Your task to perform on an android device: Go to calendar. Show me events next week Image 0: 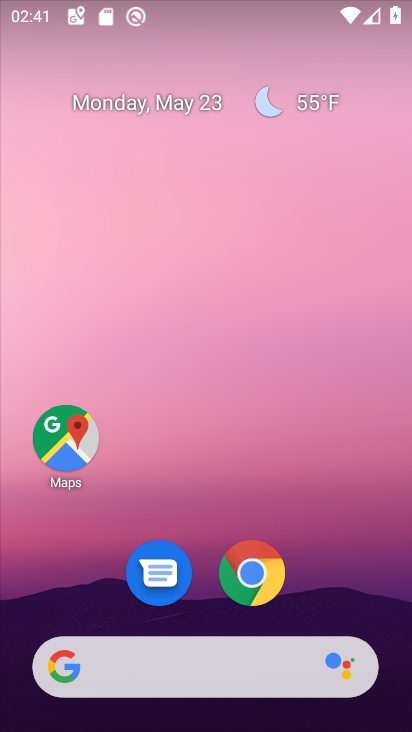
Step 0: drag from (319, 545) to (286, 295)
Your task to perform on an android device: Go to calendar. Show me events next week Image 1: 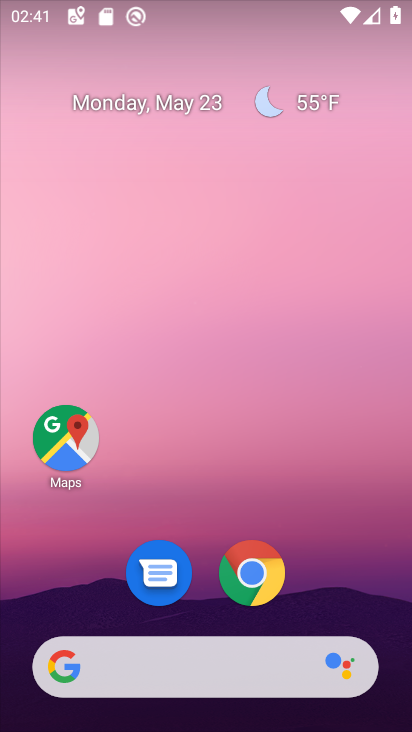
Step 1: drag from (378, 590) to (320, 115)
Your task to perform on an android device: Go to calendar. Show me events next week Image 2: 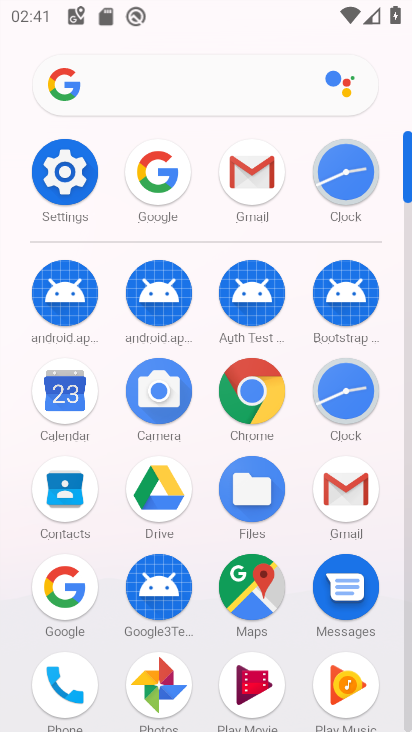
Step 2: click (57, 408)
Your task to perform on an android device: Go to calendar. Show me events next week Image 3: 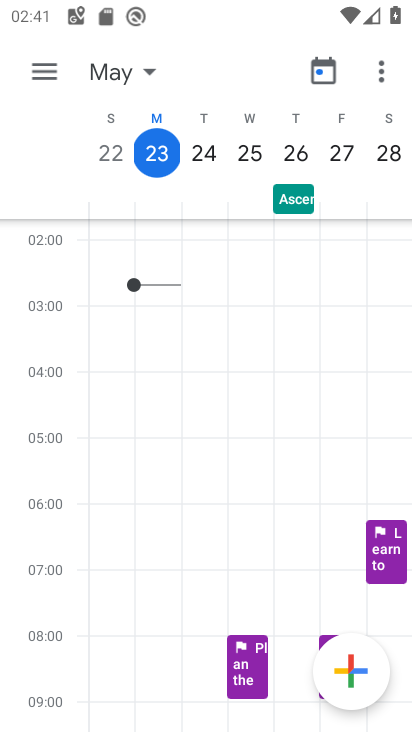
Step 3: click (29, 74)
Your task to perform on an android device: Go to calendar. Show me events next week Image 4: 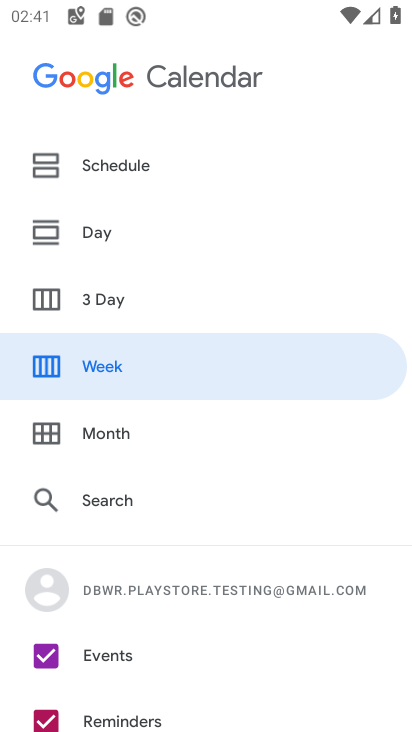
Step 4: click (52, 648)
Your task to perform on an android device: Go to calendar. Show me events next week Image 5: 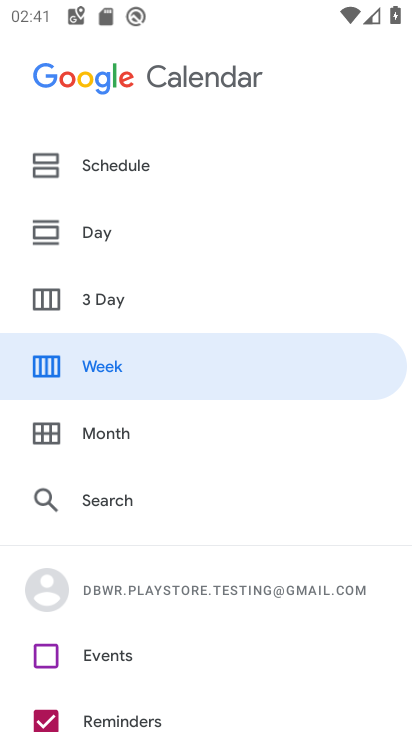
Step 5: click (65, 659)
Your task to perform on an android device: Go to calendar. Show me events next week Image 6: 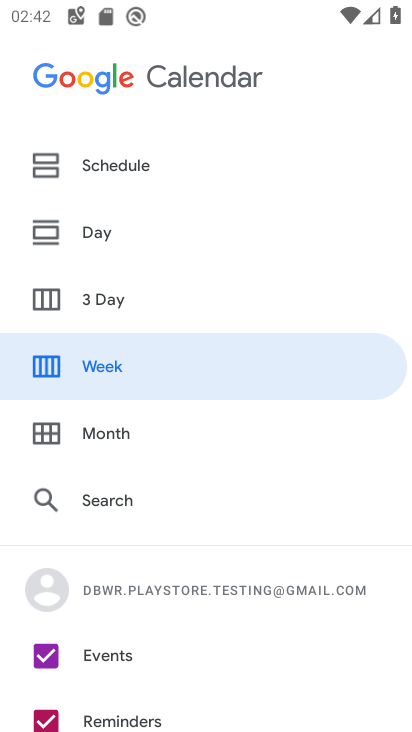
Step 6: click (87, 434)
Your task to perform on an android device: Go to calendar. Show me events next week Image 7: 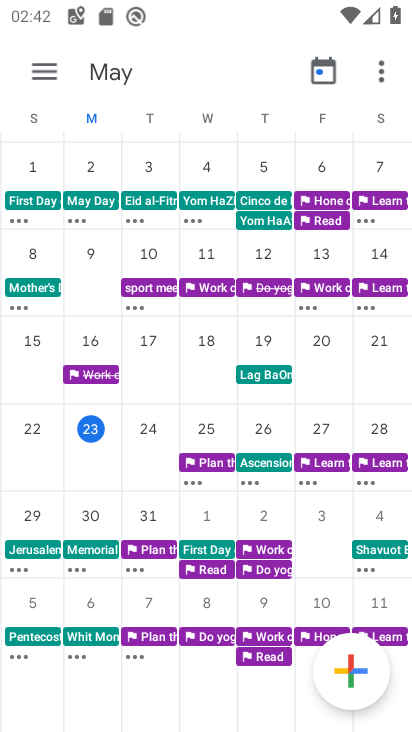
Step 7: task complete